Your task to perform on an android device: uninstall "Paramount+ | Peak Streaming" Image 0: 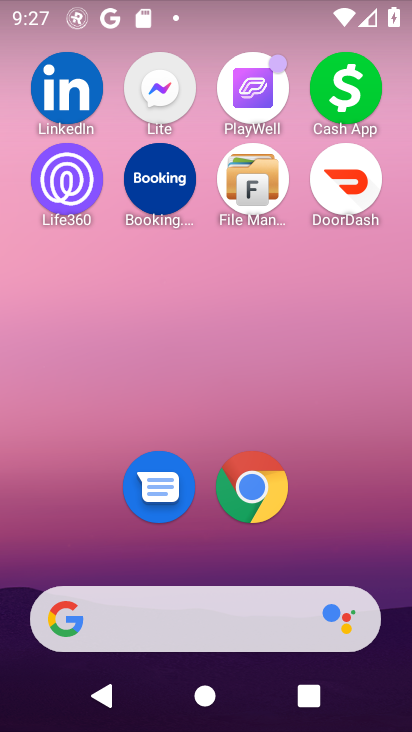
Step 0: drag from (214, 666) to (175, 293)
Your task to perform on an android device: uninstall "Paramount+ | Peak Streaming" Image 1: 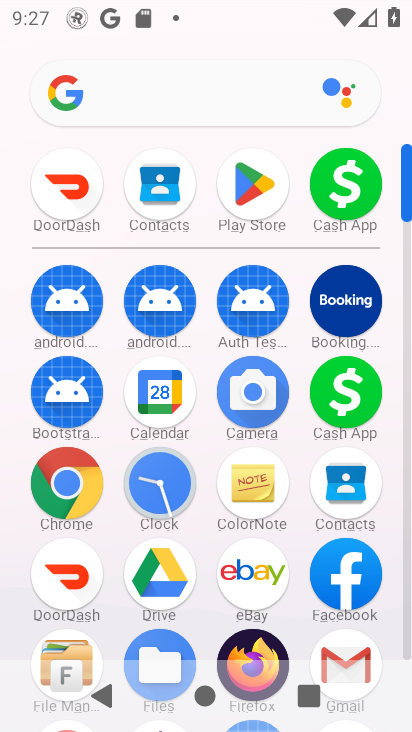
Step 1: click (258, 180)
Your task to perform on an android device: uninstall "Paramount+ | Peak Streaming" Image 2: 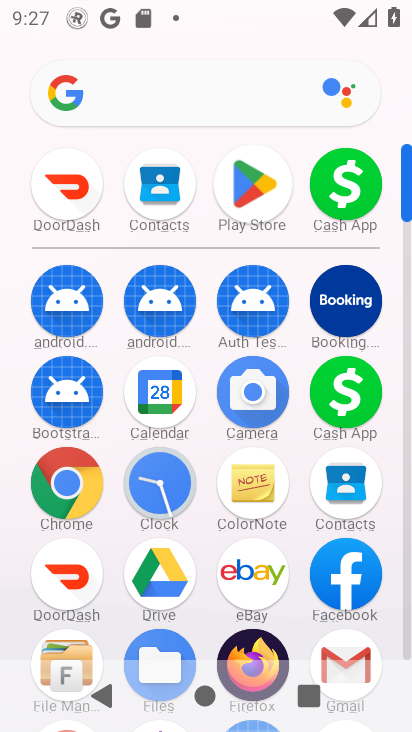
Step 2: click (258, 180)
Your task to perform on an android device: uninstall "Paramount+ | Peak Streaming" Image 3: 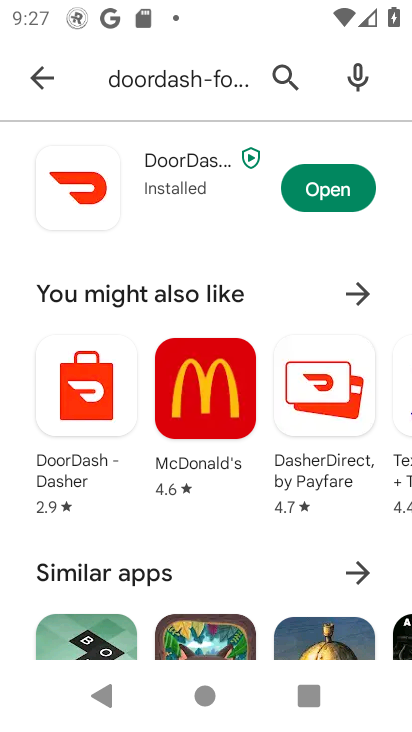
Step 3: click (42, 81)
Your task to perform on an android device: uninstall "Paramount+ | Peak Streaming" Image 4: 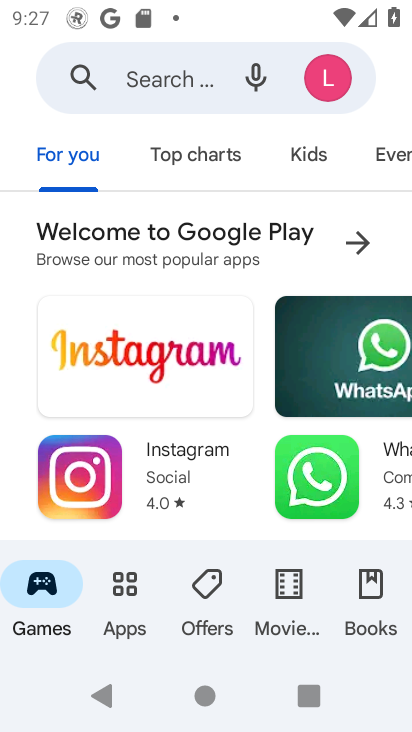
Step 4: click (134, 79)
Your task to perform on an android device: uninstall "Paramount+ | Peak Streaming" Image 5: 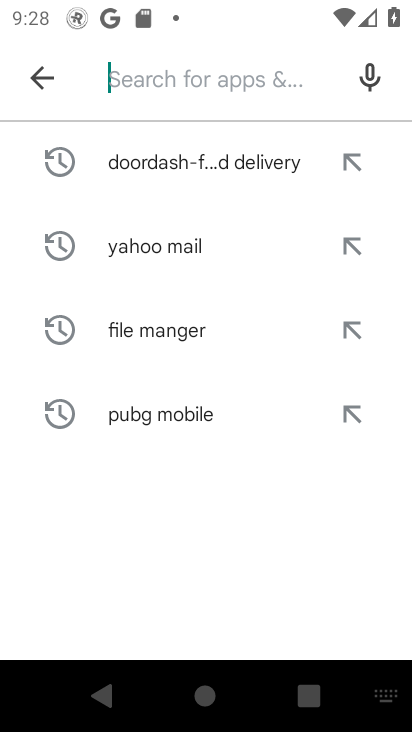
Step 5: type "Paramount+I peak streaming"
Your task to perform on an android device: uninstall "Paramount+ | Peak Streaming" Image 6: 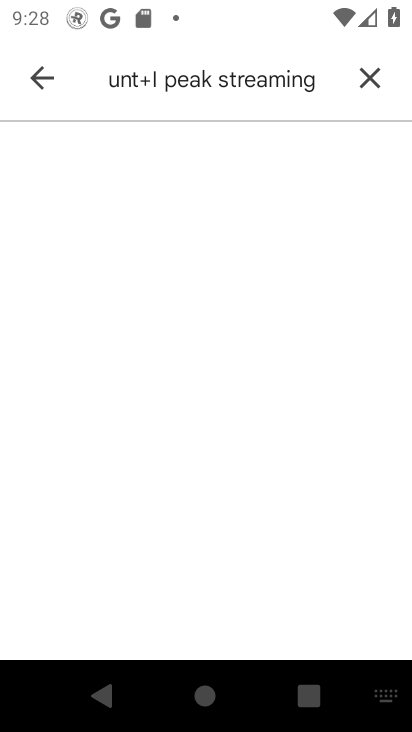
Step 6: click (265, 85)
Your task to perform on an android device: uninstall "Paramount+ | Peak Streaming" Image 7: 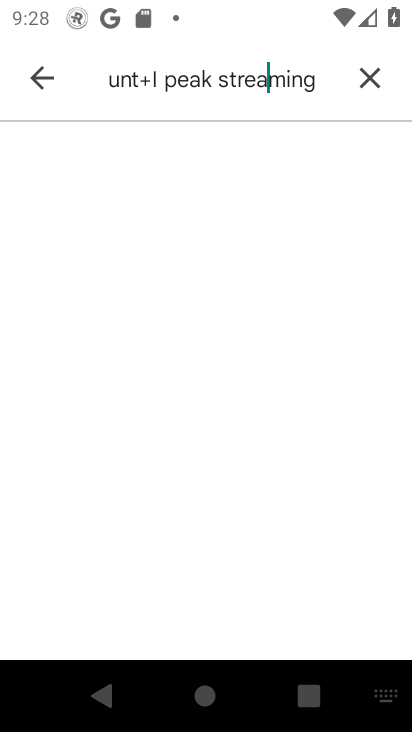
Step 7: click (281, 74)
Your task to perform on an android device: uninstall "Paramount+ | Peak Streaming" Image 8: 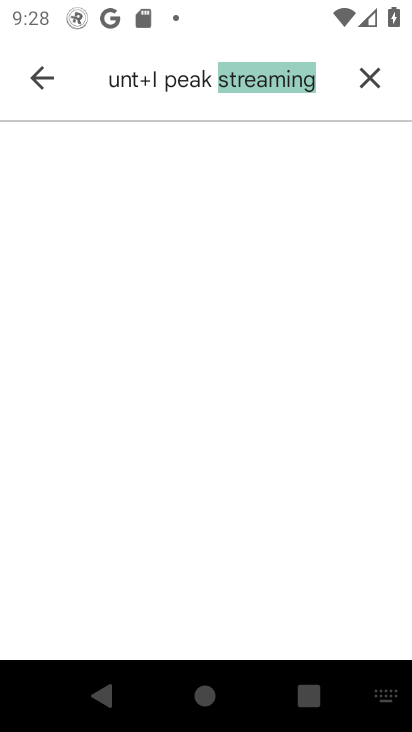
Step 8: click (281, 74)
Your task to perform on an android device: uninstall "Paramount+ | Peak Streaming" Image 9: 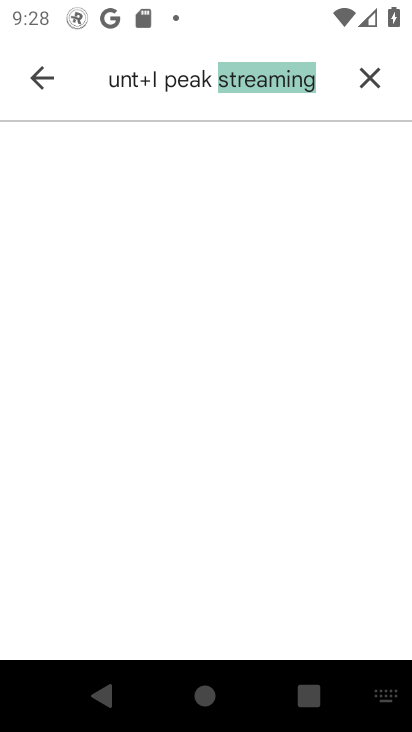
Step 9: click (282, 75)
Your task to perform on an android device: uninstall "Paramount+ | Peak Streaming" Image 10: 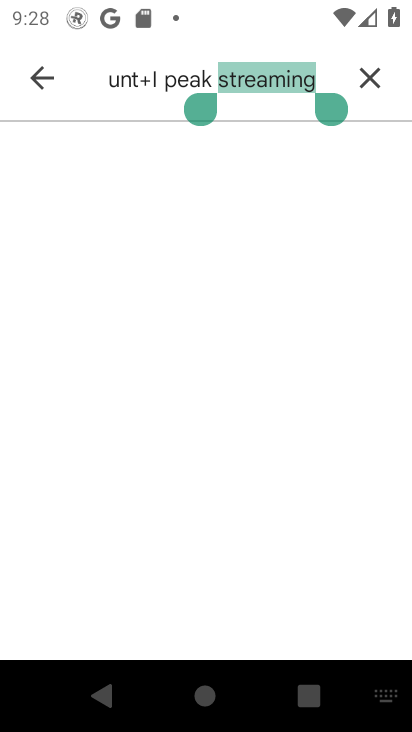
Step 10: click (316, 86)
Your task to perform on an android device: uninstall "Paramount+ | Peak Streaming" Image 11: 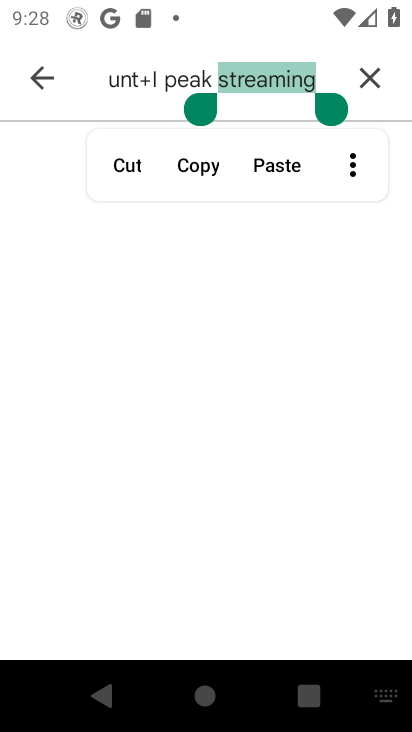
Step 11: click (322, 86)
Your task to perform on an android device: uninstall "Paramount+ | Peak Streaming" Image 12: 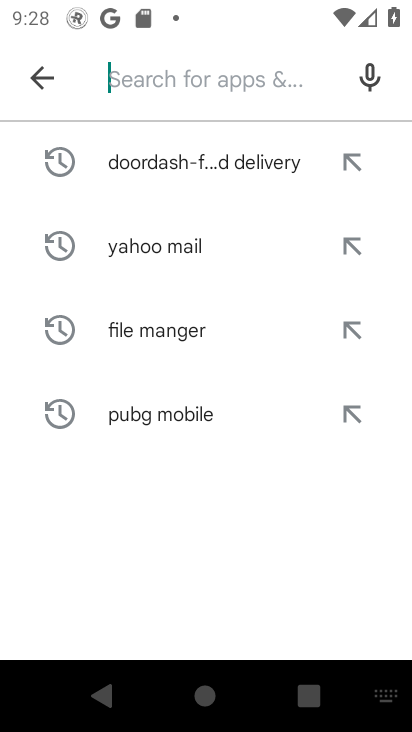
Step 12: click (322, 86)
Your task to perform on an android device: uninstall "Paramount+ | Peak Streaming" Image 13: 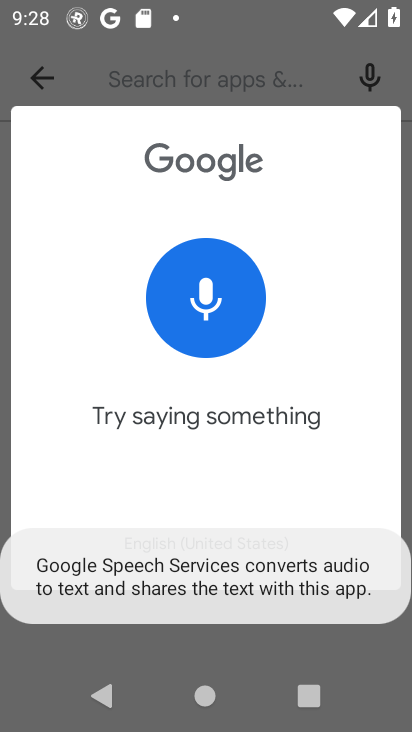
Step 13: click (37, 79)
Your task to perform on an android device: uninstall "Paramount+ | Peak Streaming" Image 14: 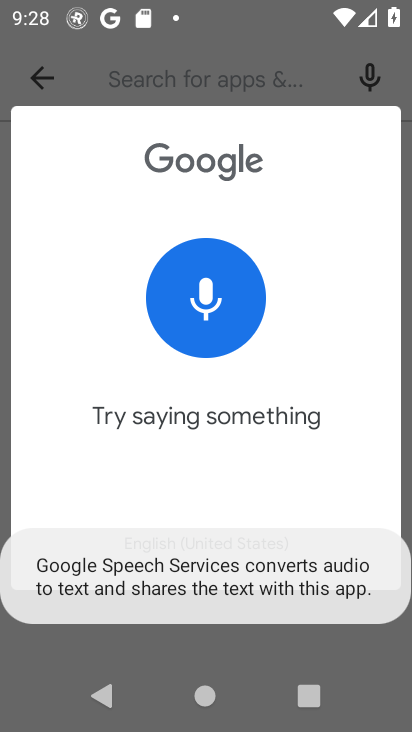
Step 14: click (46, 62)
Your task to perform on an android device: uninstall "Paramount+ | Peak Streaming" Image 15: 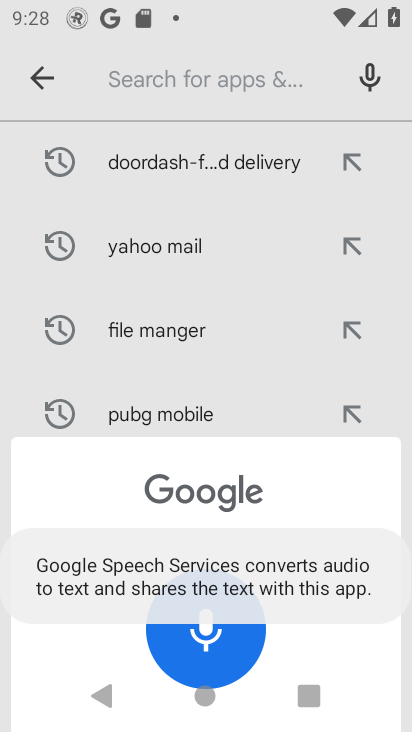
Step 15: click (23, 73)
Your task to perform on an android device: uninstall "Paramount+ | Peak Streaming" Image 16: 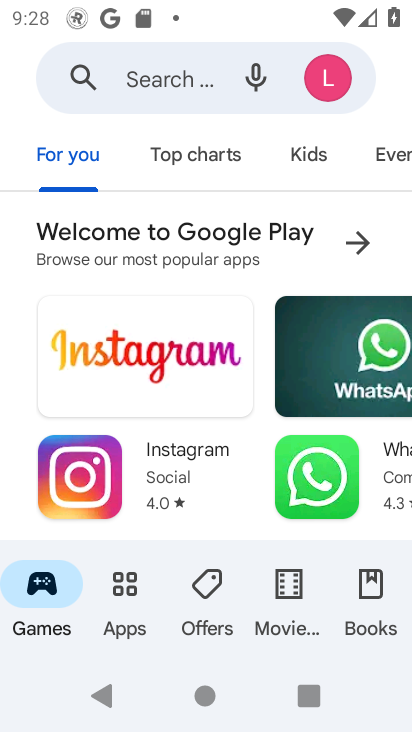
Step 16: click (121, 75)
Your task to perform on an android device: uninstall "Paramount+ | Peak Streaming" Image 17: 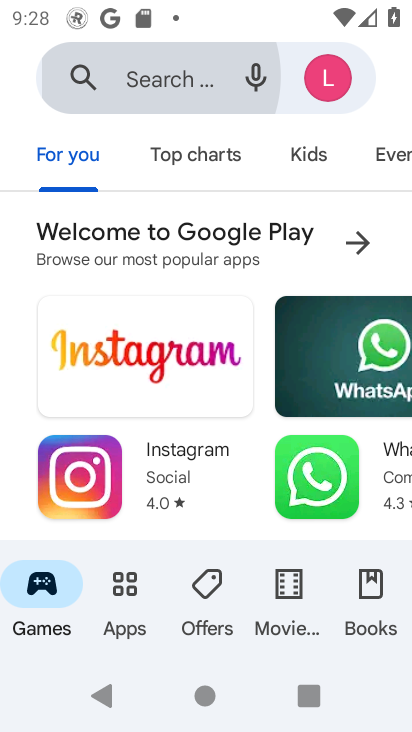
Step 17: click (159, 56)
Your task to perform on an android device: uninstall "Paramount+ | Peak Streaming" Image 18: 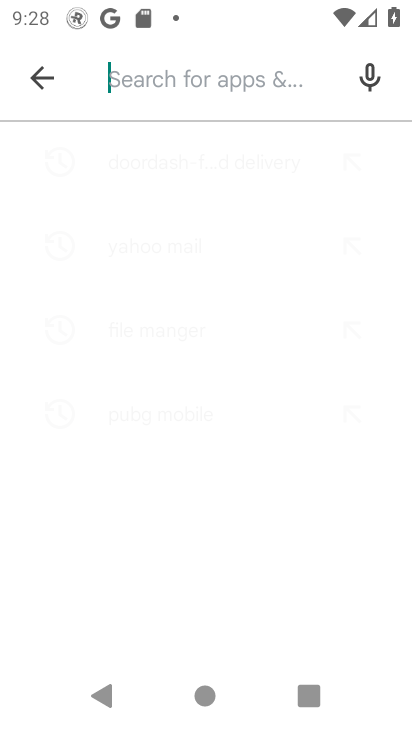
Step 18: click (162, 53)
Your task to perform on an android device: uninstall "Paramount+ | Peak Streaming" Image 19: 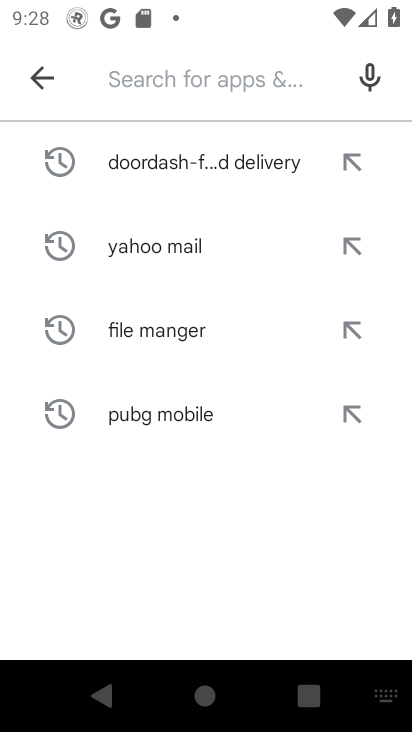
Step 19: type "Paramont +"
Your task to perform on an android device: uninstall "Paramount+ | Peak Streaming" Image 20: 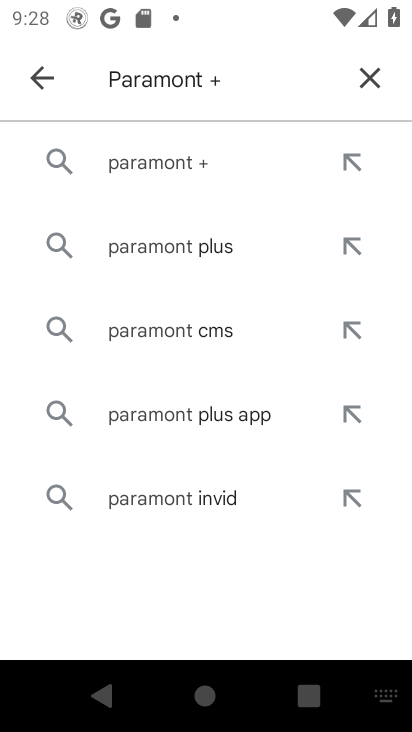
Step 20: click (177, 158)
Your task to perform on an android device: uninstall "Paramount+ | Peak Streaming" Image 21: 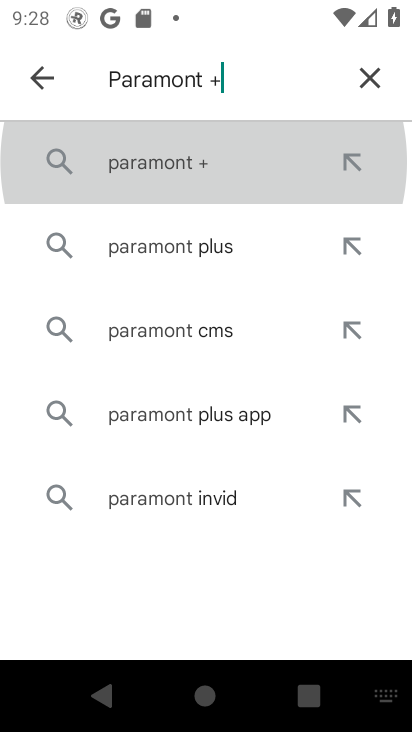
Step 21: click (177, 158)
Your task to perform on an android device: uninstall "Paramount+ | Peak Streaming" Image 22: 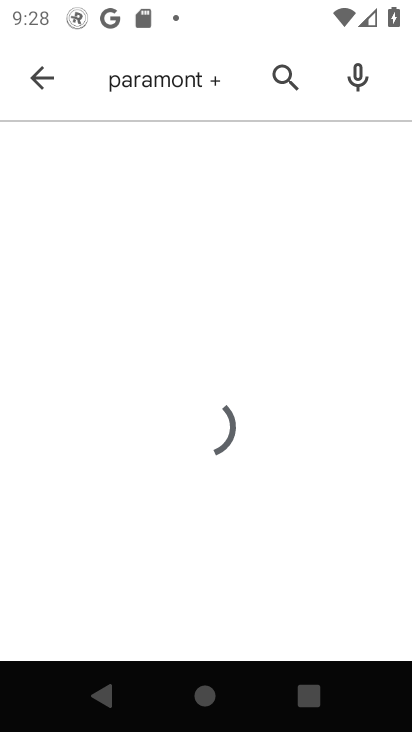
Step 22: click (178, 158)
Your task to perform on an android device: uninstall "Paramount+ | Peak Streaming" Image 23: 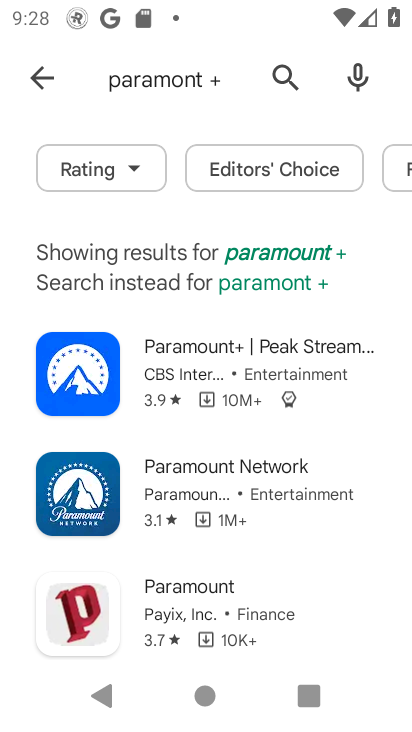
Step 23: click (227, 361)
Your task to perform on an android device: uninstall "Paramount+ | Peak Streaming" Image 24: 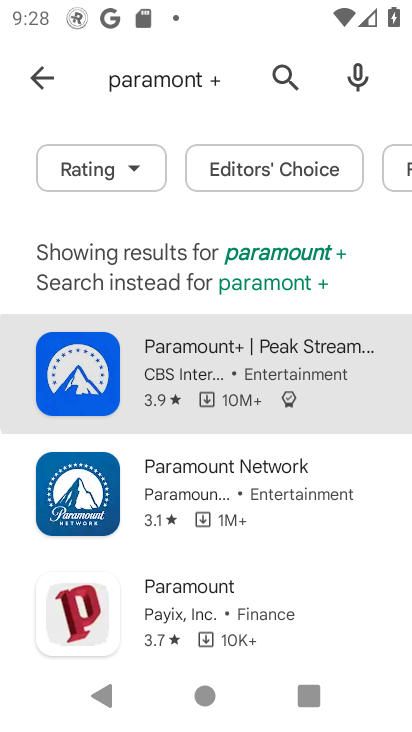
Step 24: click (228, 361)
Your task to perform on an android device: uninstall "Paramount+ | Peak Streaming" Image 25: 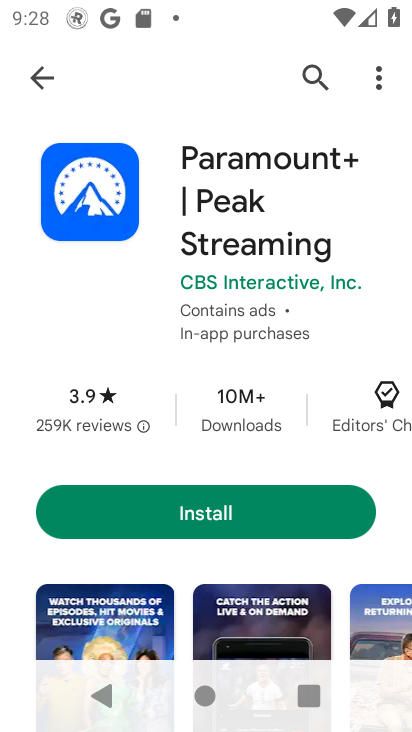
Step 25: task complete